Your task to perform on an android device: clear history in the chrome app Image 0: 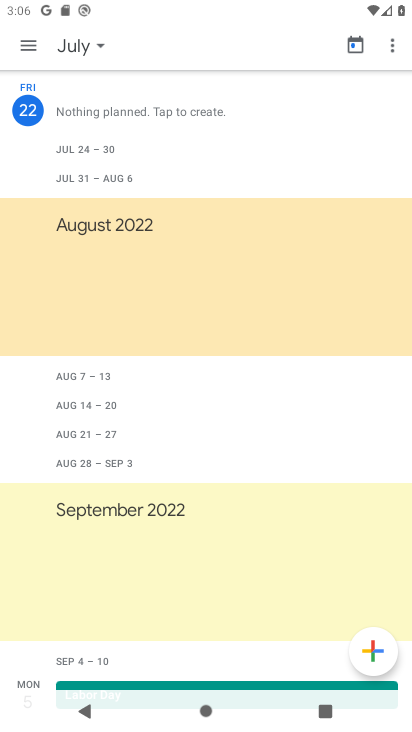
Step 0: drag from (267, 595) to (183, 234)
Your task to perform on an android device: clear history in the chrome app Image 1: 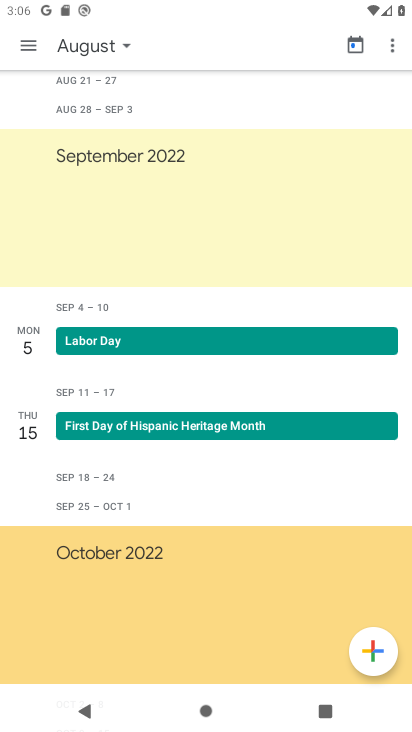
Step 1: press home button
Your task to perform on an android device: clear history in the chrome app Image 2: 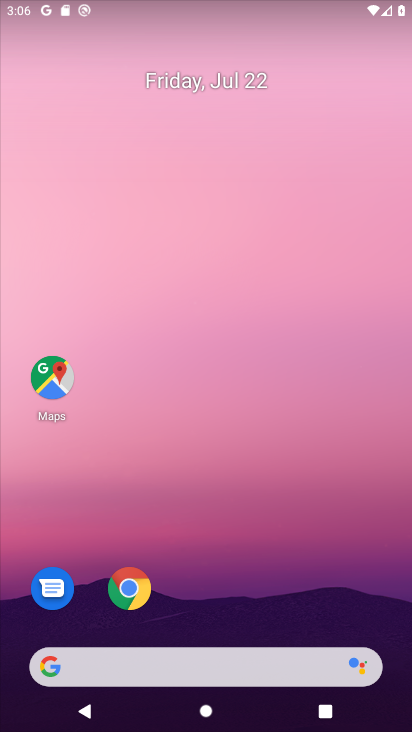
Step 2: drag from (264, 572) to (237, 70)
Your task to perform on an android device: clear history in the chrome app Image 3: 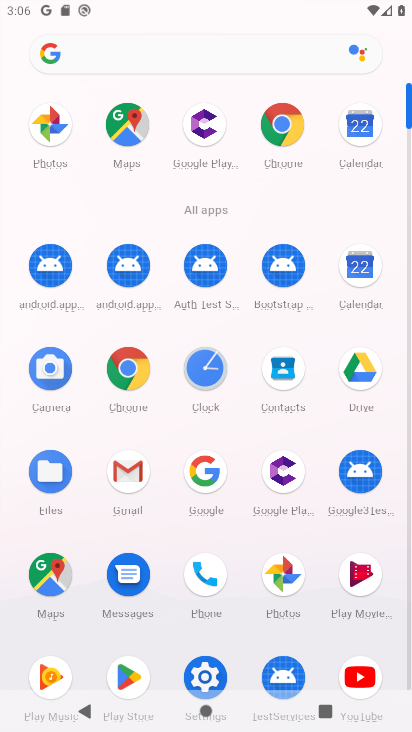
Step 3: click (129, 355)
Your task to perform on an android device: clear history in the chrome app Image 4: 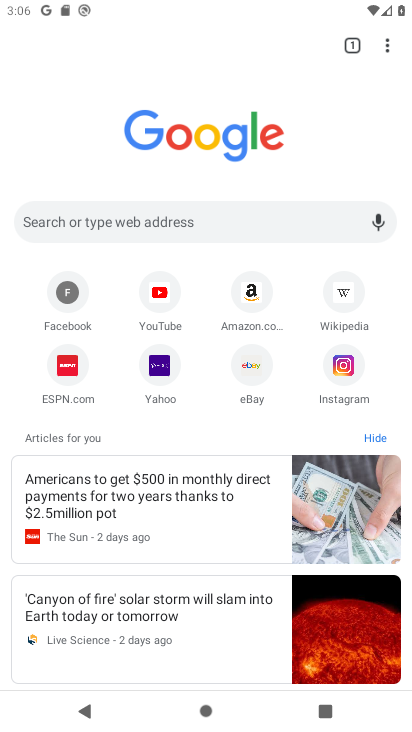
Step 4: drag from (380, 40) to (233, 255)
Your task to perform on an android device: clear history in the chrome app Image 5: 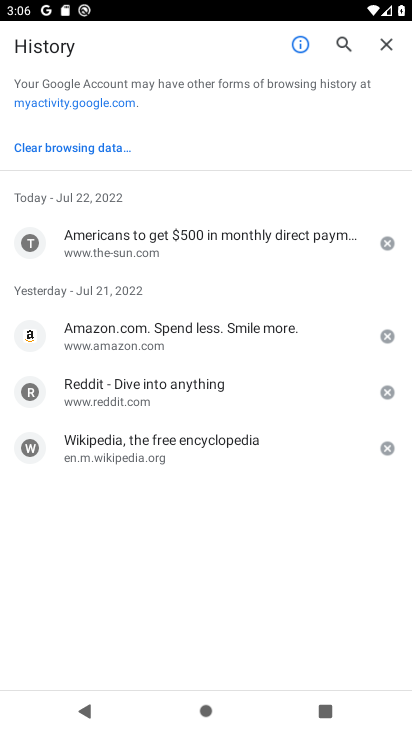
Step 5: click (19, 244)
Your task to perform on an android device: clear history in the chrome app Image 6: 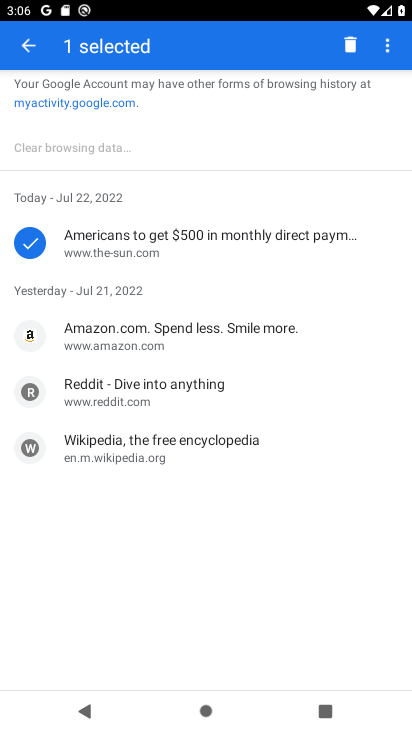
Step 6: click (19, 341)
Your task to perform on an android device: clear history in the chrome app Image 7: 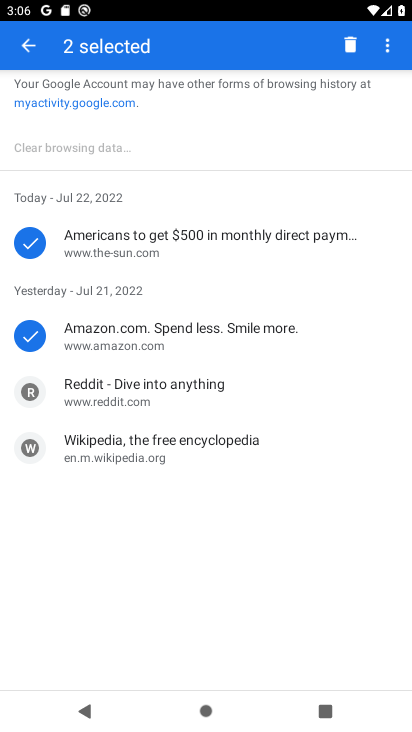
Step 7: click (23, 386)
Your task to perform on an android device: clear history in the chrome app Image 8: 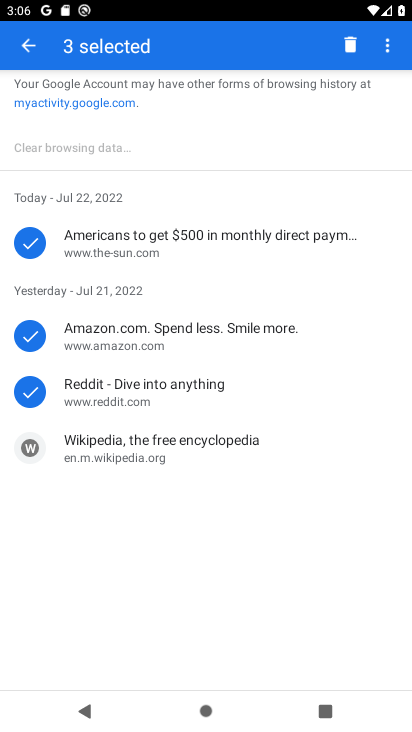
Step 8: click (31, 445)
Your task to perform on an android device: clear history in the chrome app Image 9: 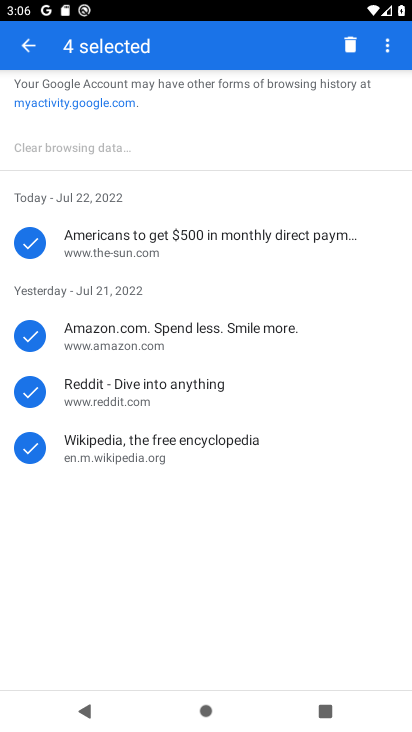
Step 9: click (342, 38)
Your task to perform on an android device: clear history in the chrome app Image 10: 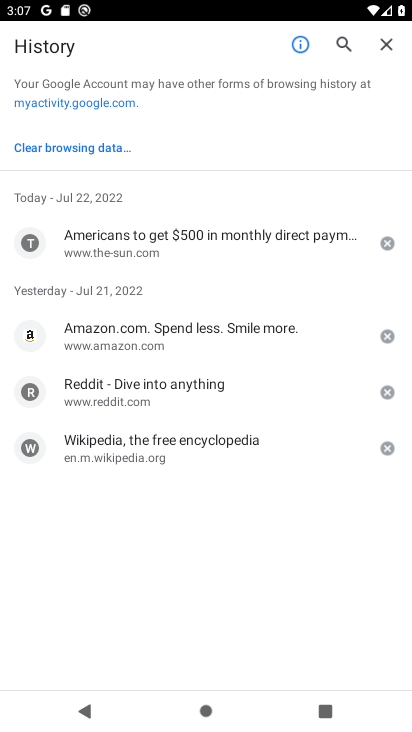
Step 10: click (23, 251)
Your task to perform on an android device: clear history in the chrome app Image 11: 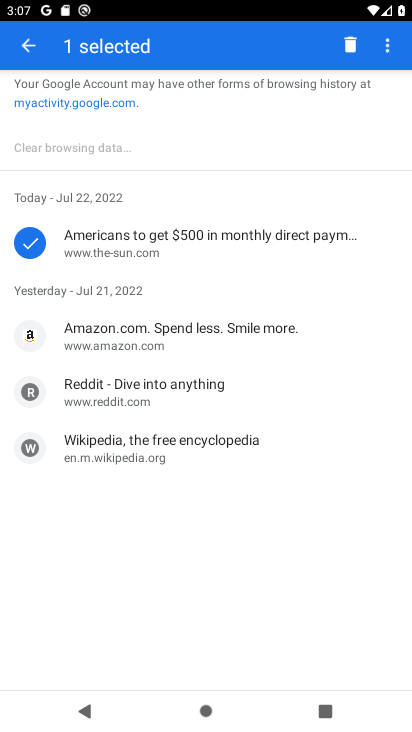
Step 11: click (18, 337)
Your task to perform on an android device: clear history in the chrome app Image 12: 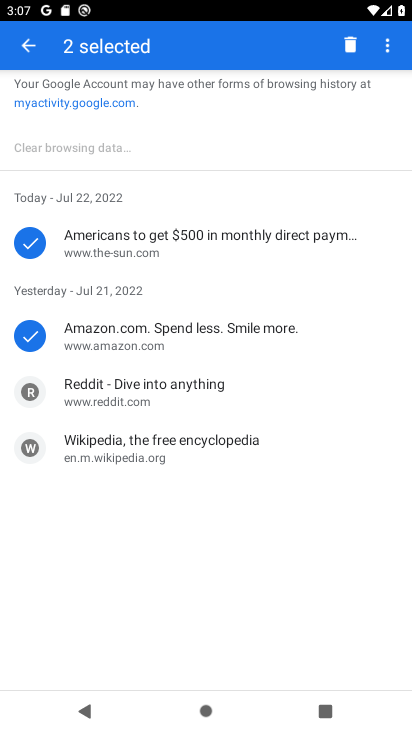
Step 12: click (28, 396)
Your task to perform on an android device: clear history in the chrome app Image 13: 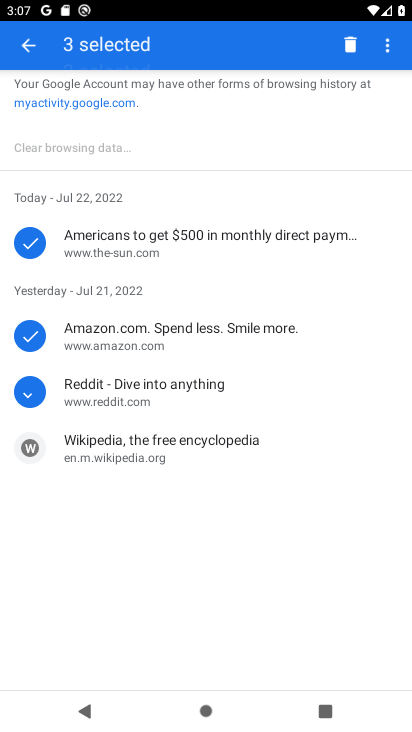
Step 13: click (26, 437)
Your task to perform on an android device: clear history in the chrome app Image 14: 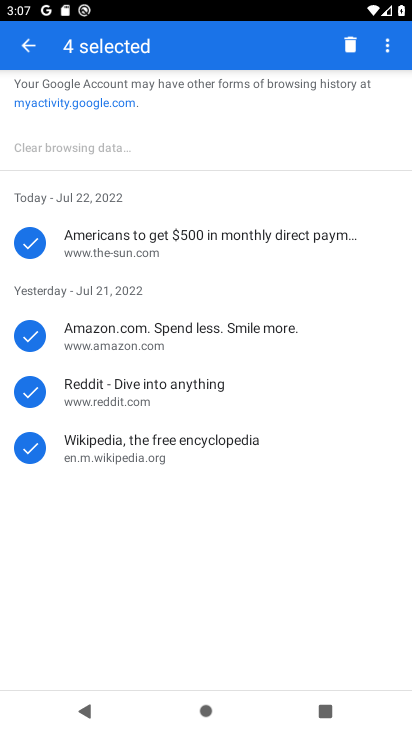
Step 14: click (352, 47)
Your task to perform on an android device: clear history in the chrome app Image 15: 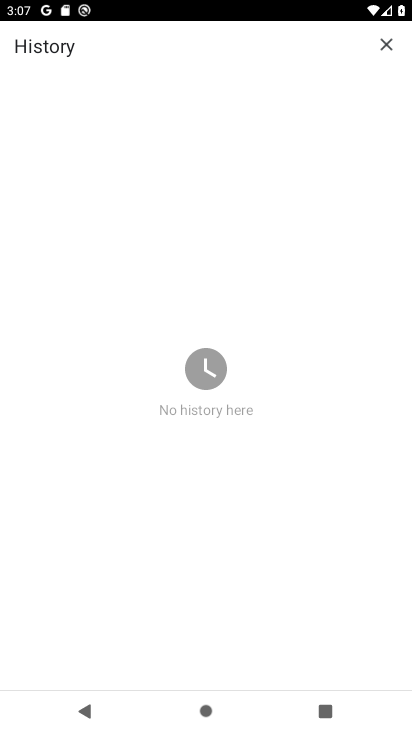
Step 15: task complete